Your task to perform on an android device: Open Reddit.com Image 0: 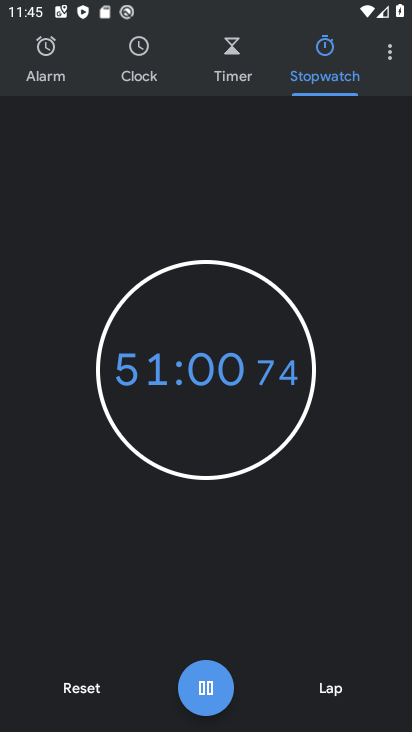
Step 0: press home button
Your task to perform on an android device: Open Reddit.com Image 1: 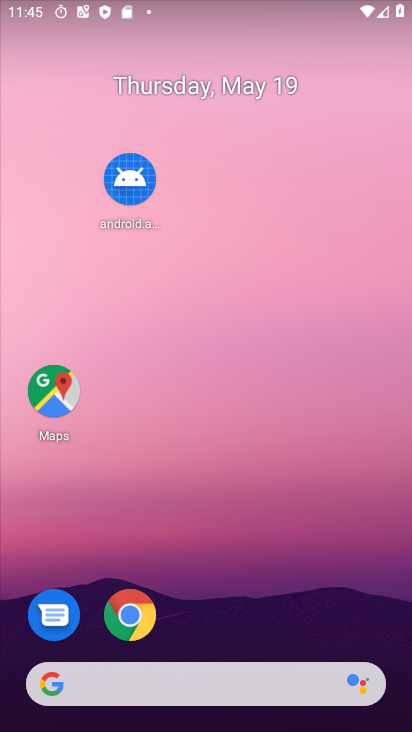
Step 1: click (135, 618)
Your task to perform on an android device: Open Reddit.com Image 2: 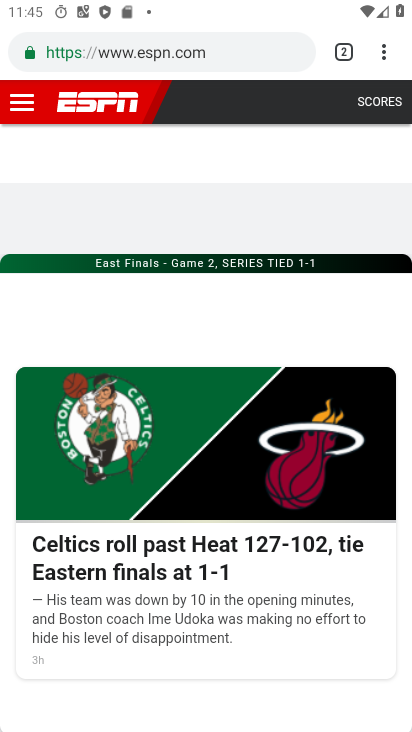
Step 2: click (218, 30)
Your task to perform on an android device: Open Reddit.com Image 3: 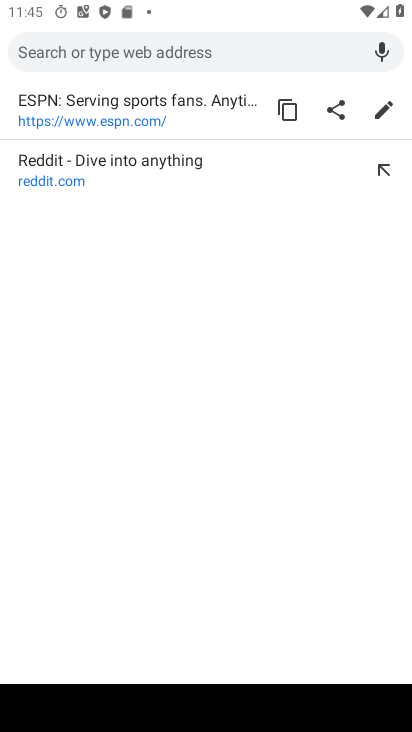
Step 3: type "reddit.com"
Your task to perform on an android device: Open Reddit.com Image 4: 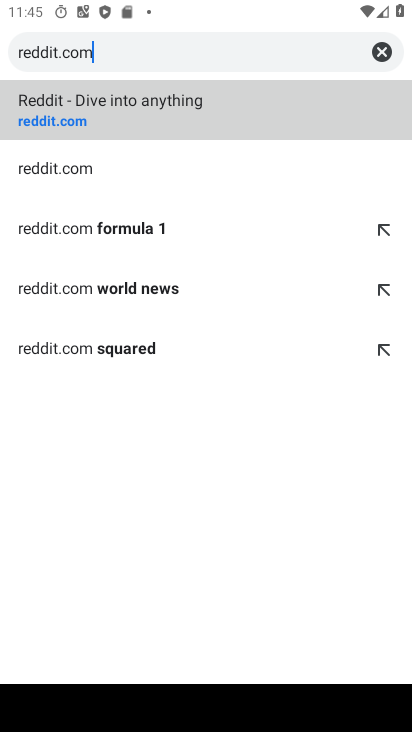
Step 4: click (229, 111)
Your task to perform on an android device: Open Reddit.com Image 5: 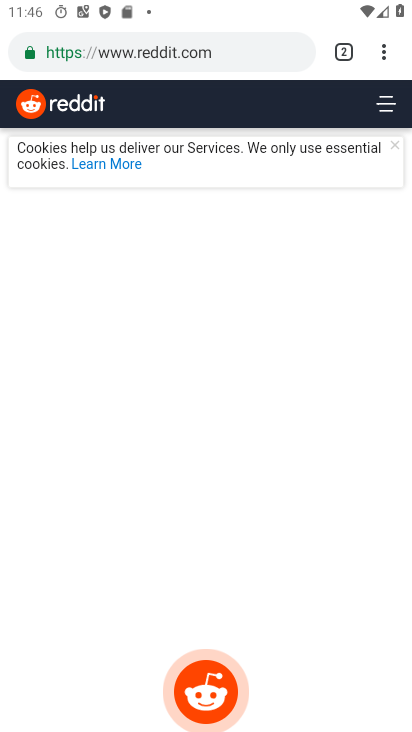
Step 5: task complete